Your task to perform on an android device: Go to ESPN.com Image 0: 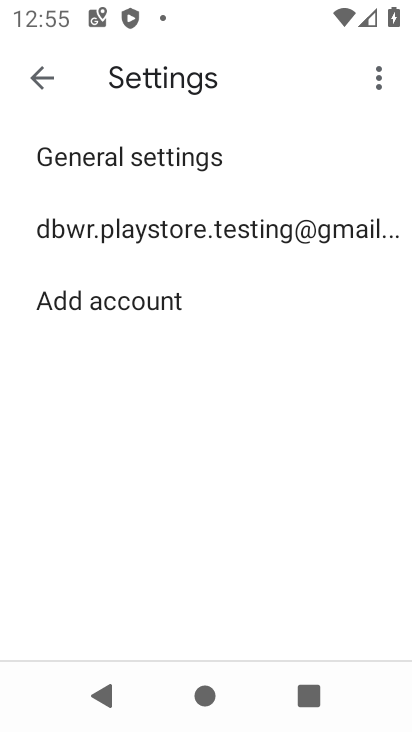
Step 0: press home button
Your task to perform on an android device: Go to ESPN.com Image 1: 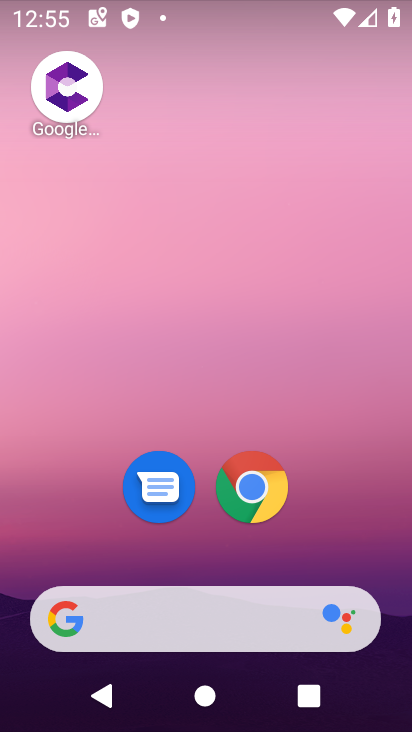
Step 1: click (257, 479)
Your task to perform on an android device: Go to ESPN.com Image 2: 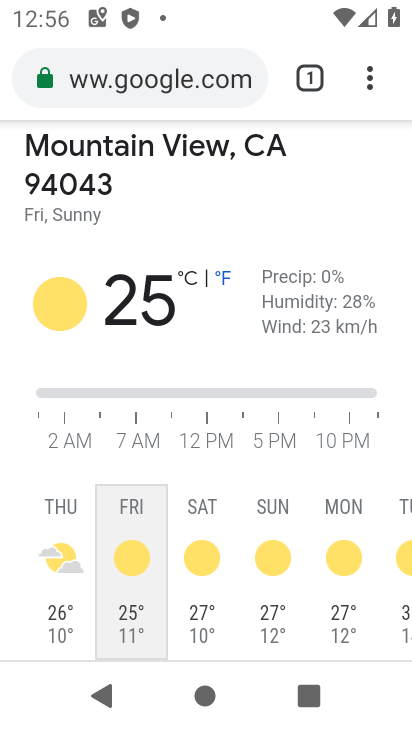
Step 2: click (211, 58)
Your task to perform on an android device: Go to ESPN.com Image 3: 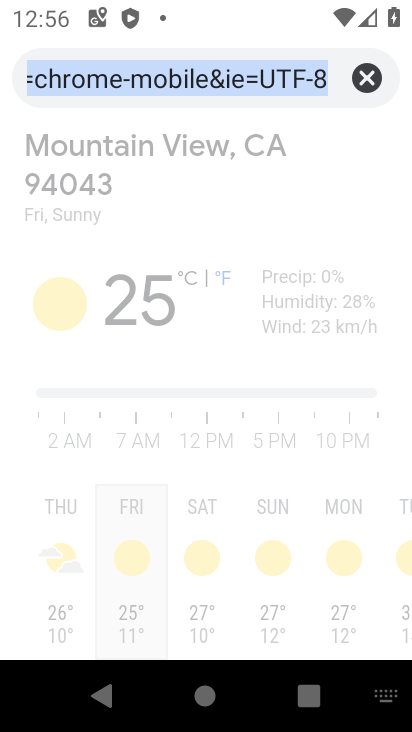
Step 3: type "espn.com"
Your task to perform on an android device: Go to ESPN.com Image 4: 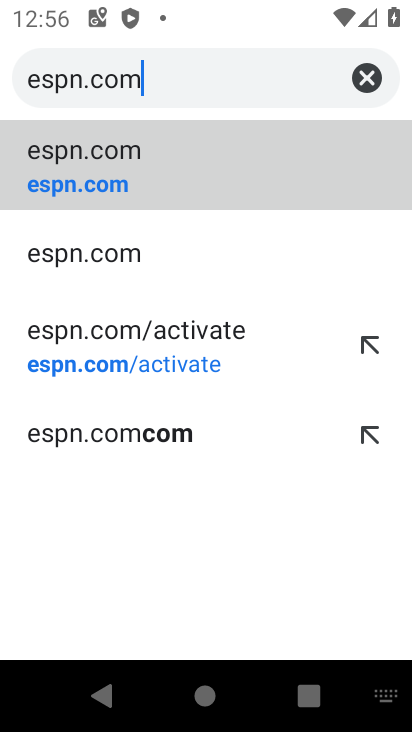
Step 4: click (97, 192)
Your task to perform on an android device: Go to ESPN.com Image 5: 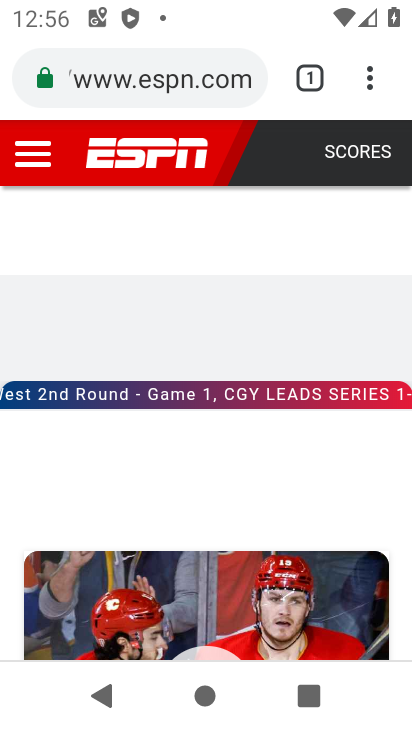
Step 5: task complete